Your task to perform on an android device: add a contact in the contacts app Image 0: 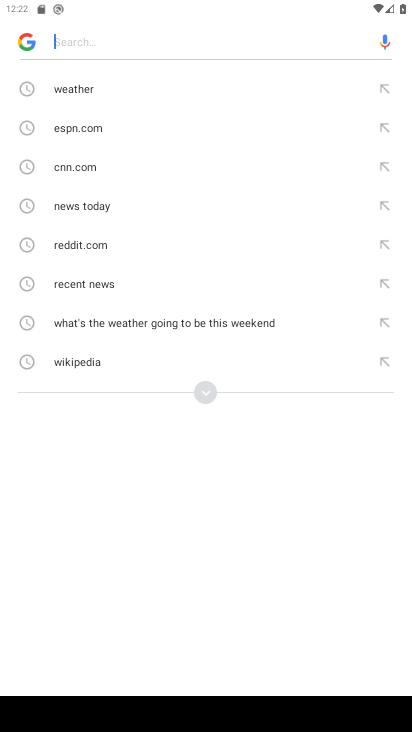
Step 0: press home button
Your task to perform on an android device: add a contact in the contacts app Image 1: 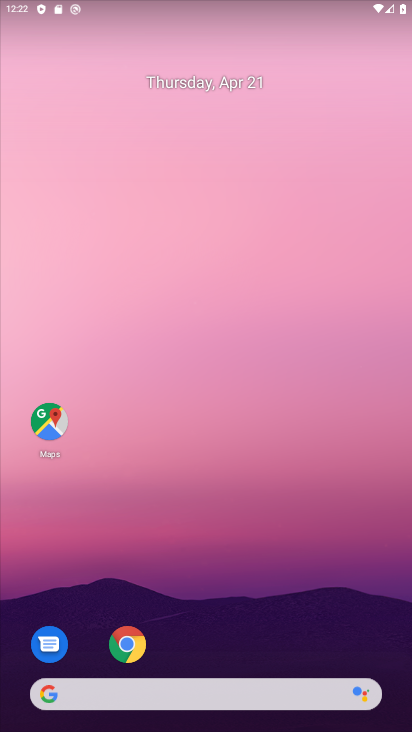
Step 1: drag from (244, 676) to (146, 19)
Your task to perform on an android device: add a contact in the contacts app Image 2: 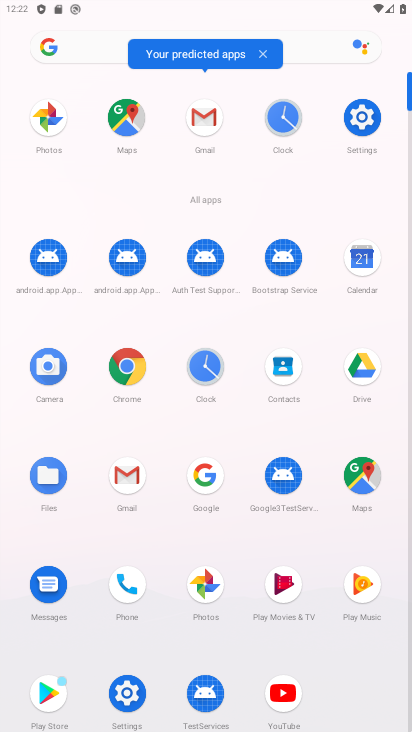
Step 2: click (132, 580)
Your task to perform on an android device: add a contact in the contacts app Image 3: 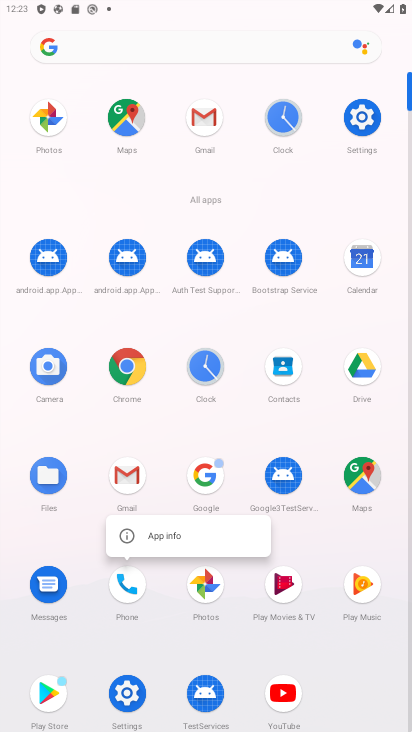
Step 3: click (129, 598)
Your task to perform on an android device: add a contact in the contacts app Image 4: 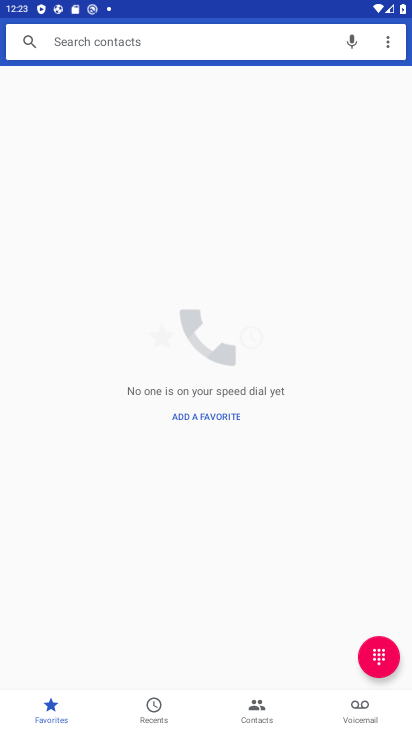
Step 4: click (253, 703)
Your task to perform on an android device: add a contact in the contacts app Image 5: 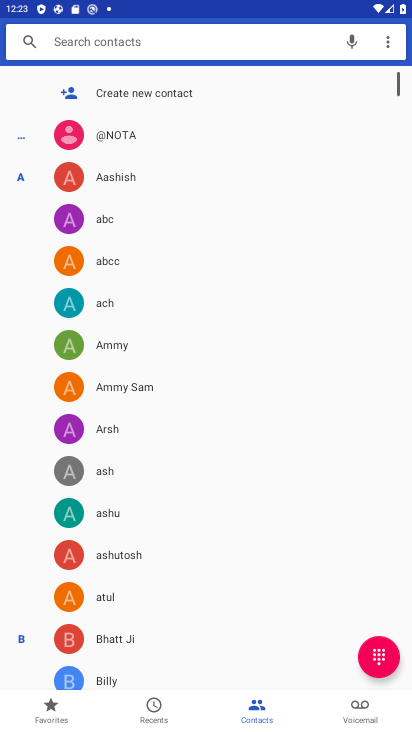
Step 5: click (122, 89)
Your task to perform on an android device: add a contact in the contacts app Image 6: 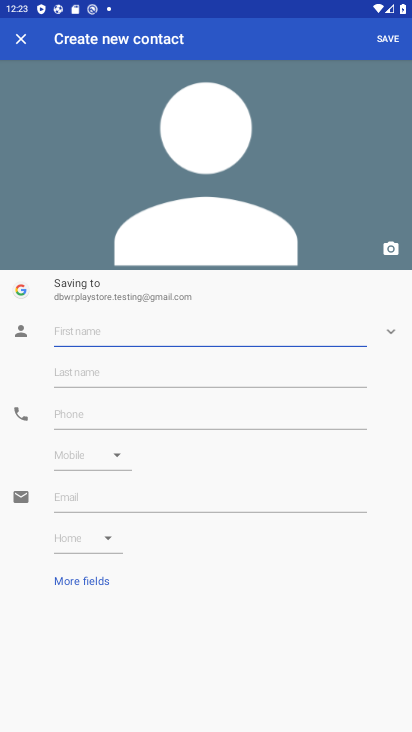
Step 6: type "h"
Your task to perform on an android device: add a contact in the contacts app Image 7: 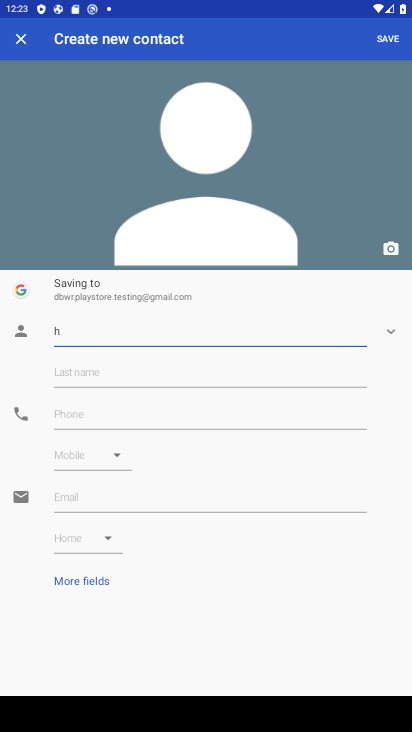
Step 7: click (232, 424)
Your task to perform on an android device: add a contact in the contacts app Image 8: 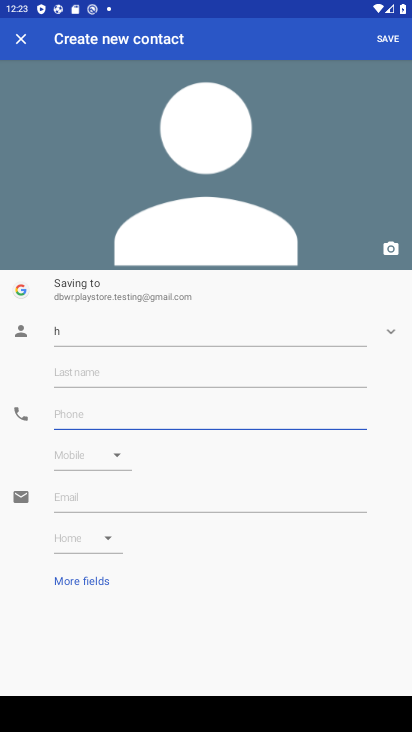
Step 8: type "96789"
Your task to perform on an android device: add a contact in the contacts app Image 9: 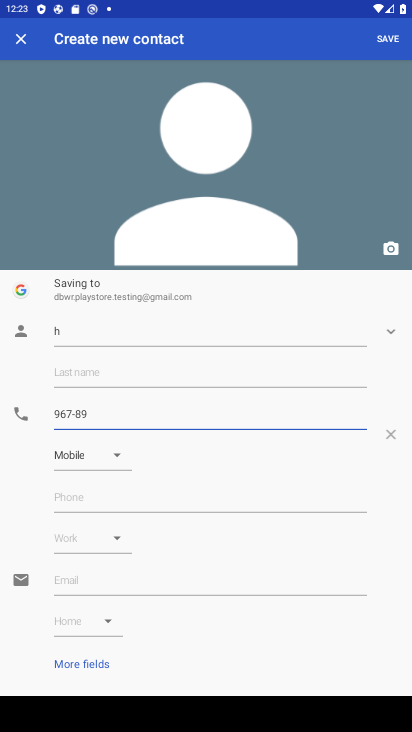
Step 9: type ""
Your task to perform on an android device: add a contact in the contacts app Image 10: 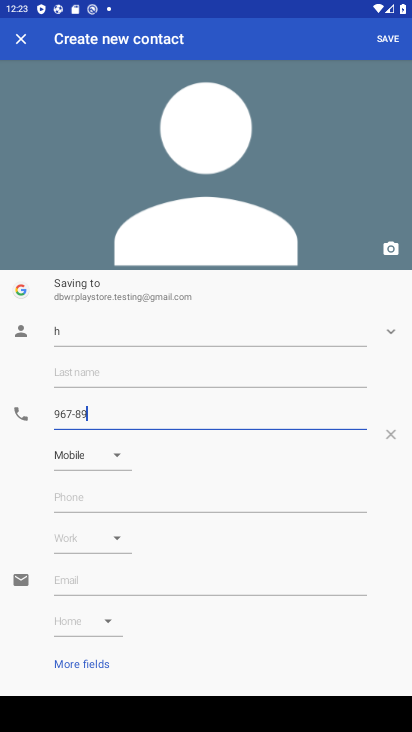
Step 10: click (386, 33)
Your task to perform on an android device: add a contact in the contacts app Image 11: 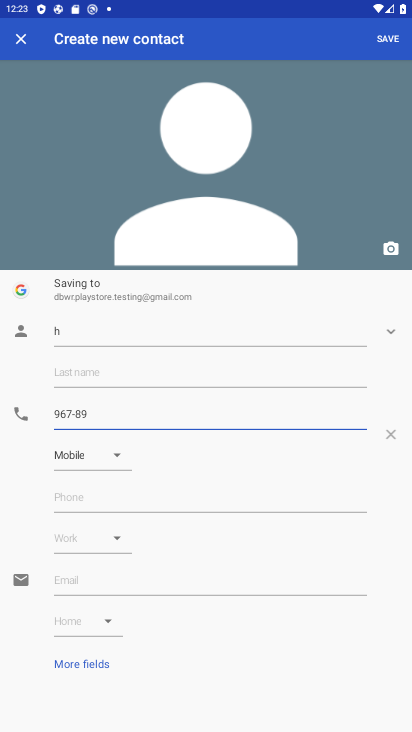
Step 11: task complete